Your task to perform on an android device: Go to display settings Image 0: 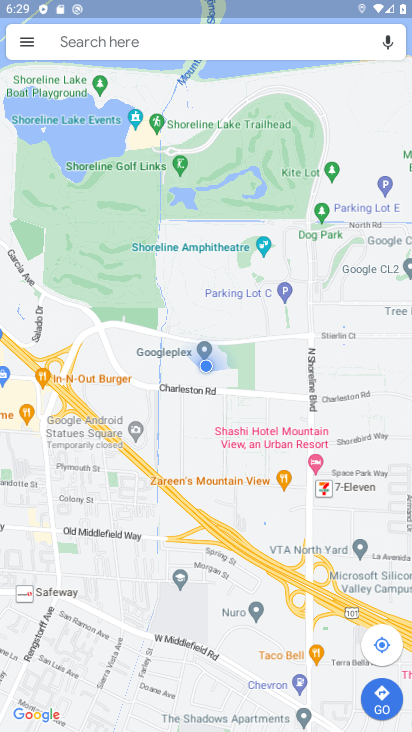
Step 0: press home button
Your task to perform on an android device: Go to display settings Image 1: 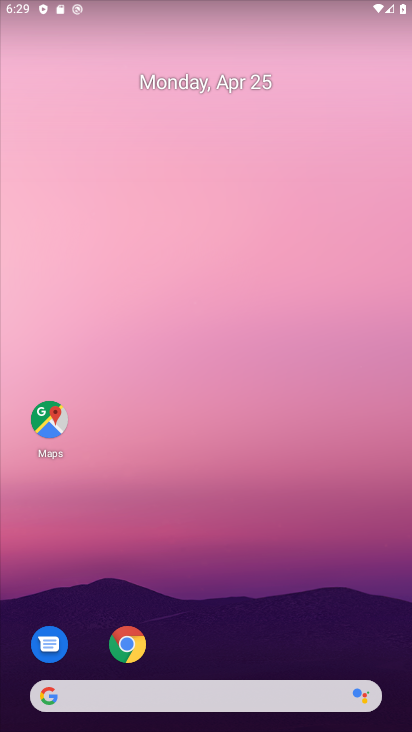
Step 1: drag from (247, 631) to (254, 93)
Your task to perform on an android device: Go to display settings Image 2: 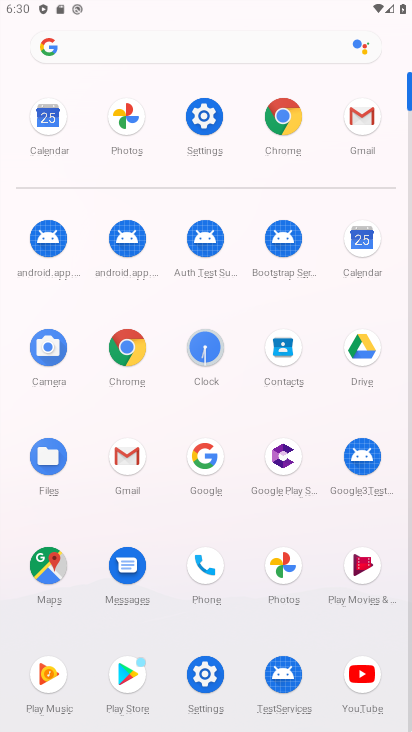
Step 2: click (206, 116)
Your task to perform on an android device: Go to display settings Image 3: 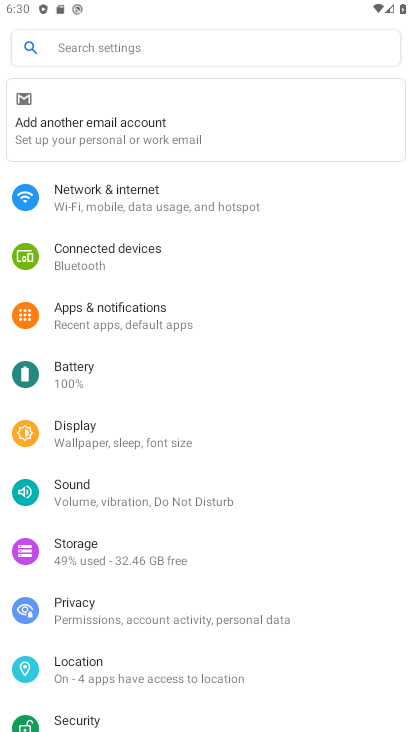
Step 3: click (142, 435)
Your task to perform on an android device: Go to display settings Image 4: 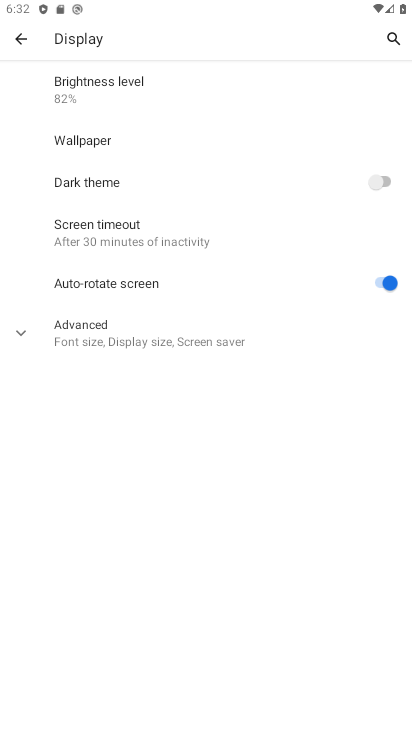
Step 4: click (169, 332)
Your task to perform on an android device: Go to display settings Image 5: 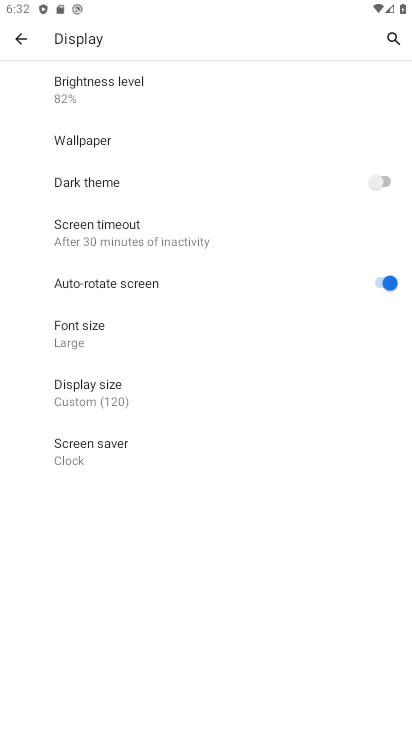
Step 5: task complete